Your task to perform on an android device: What's US dollar exchange rate against the South Korean Won? Image 0: 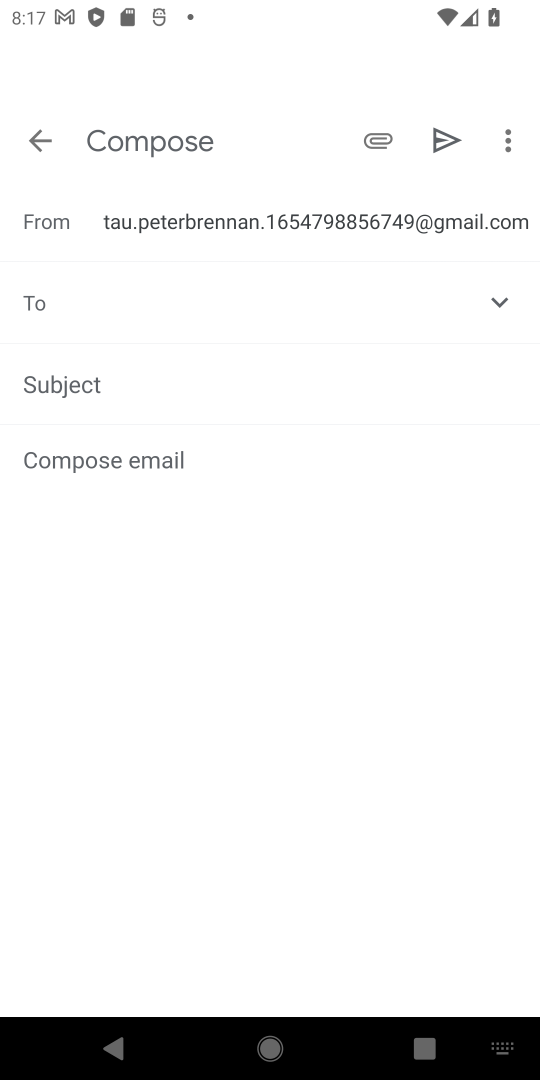
Step 0: press home button
Your task to perform on an android device: What's US dollar exchange rate against the South Korean Won? Image 1: 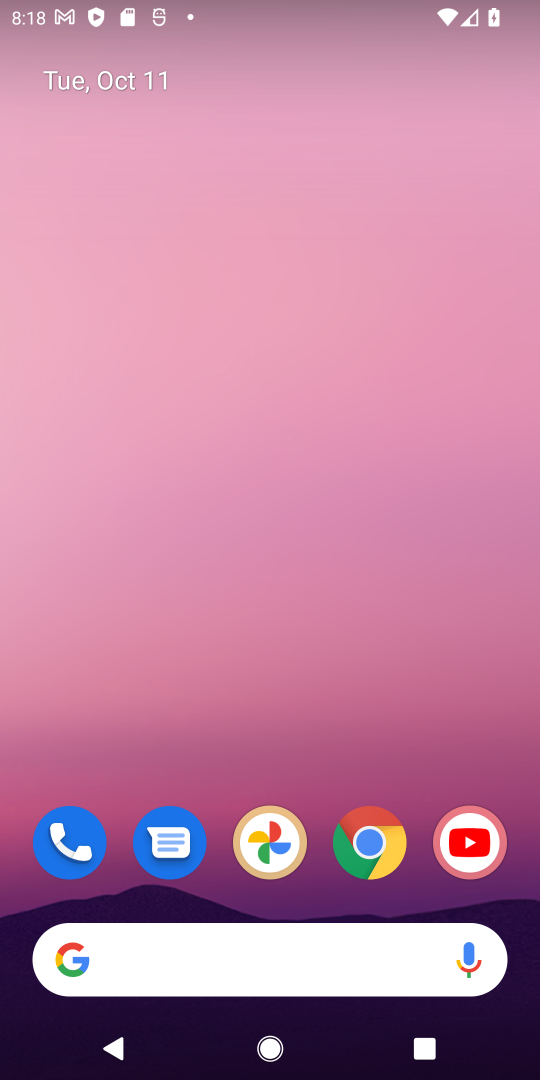
Step 1: click (367, 827)
Your task to perform on an android device: What's US dollar exchange rate against the South Korean Won? Image 2: 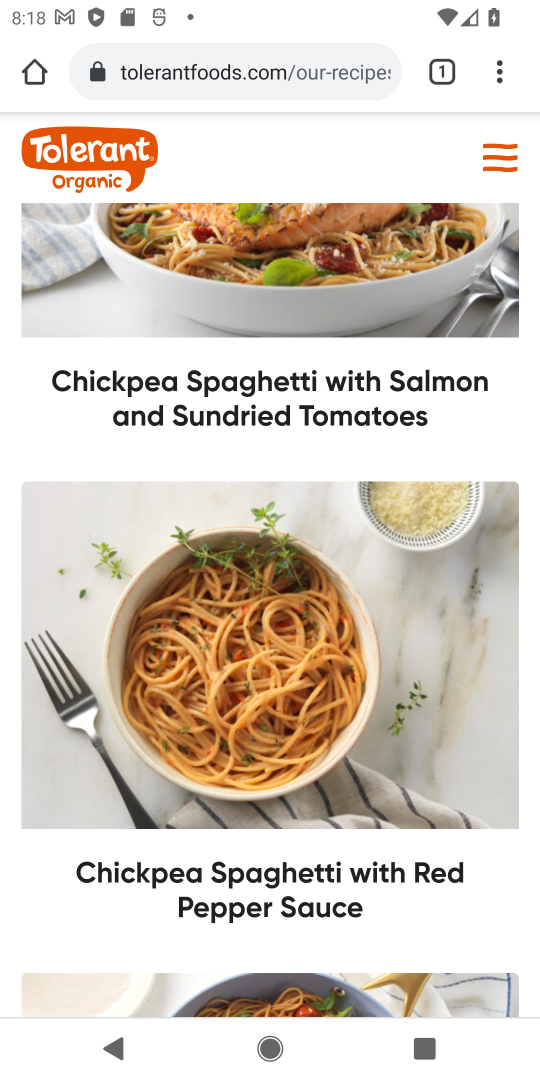
Step 2: click (274, 71)
Your task to perform on an android device: What's US dollar exchange rate against the South Korean Won? Image 3: 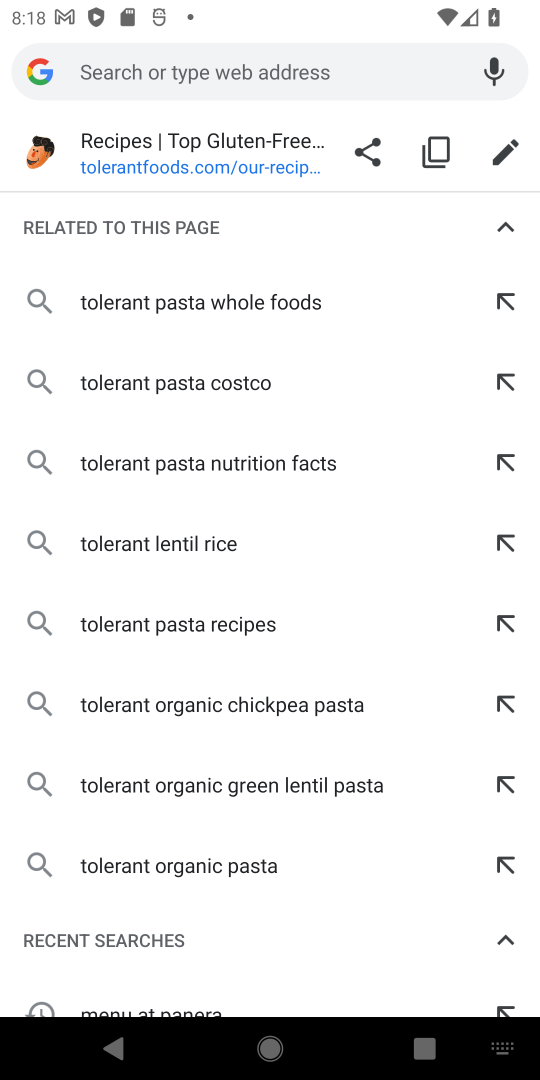
Step 3: type "us dollar exchange rate against the south korean won"
Your task to perform on an android device: What's US dollar exchange rate against the South Korean Won? Image 4: 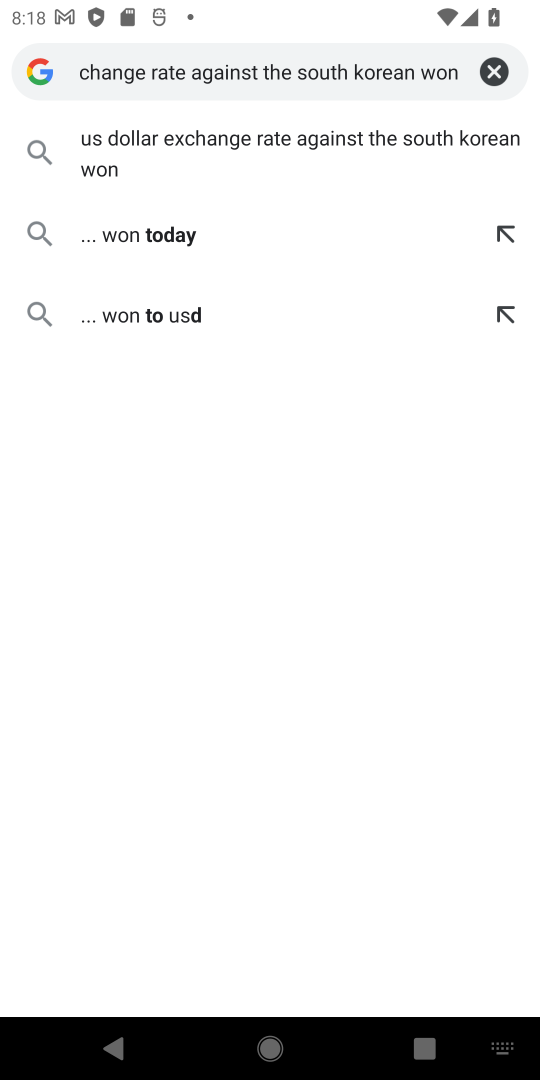
Step 4: click (124, 139)
Your task to perform on an android device: What's US dollar exchange rate against the South Korean Won? Image 5: 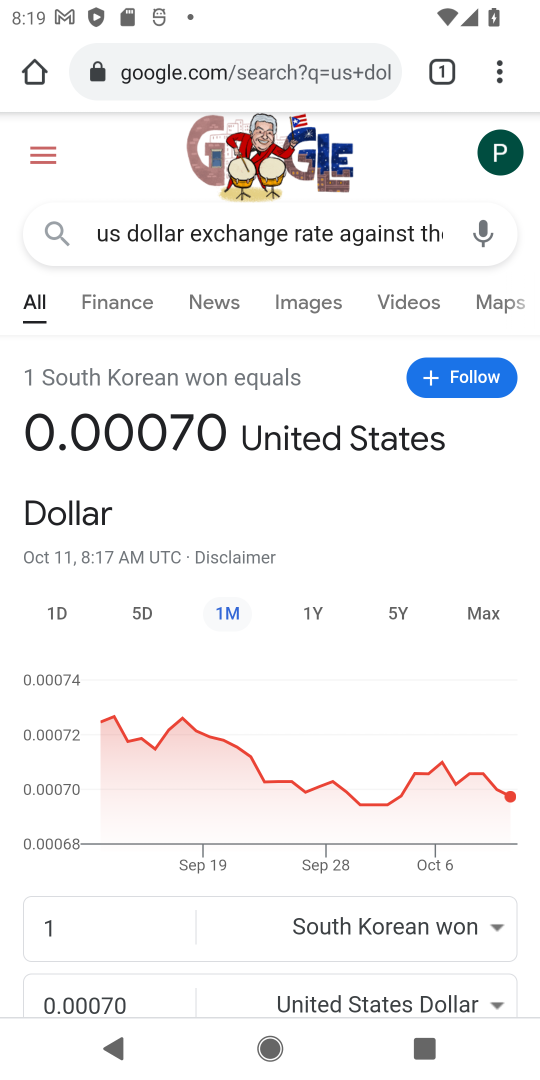
Step 5: drag from (384, 683) to (440, 363)
Your task to perform on an android device: What's US dollar exchange rate against the South Korean Won? Image 6: 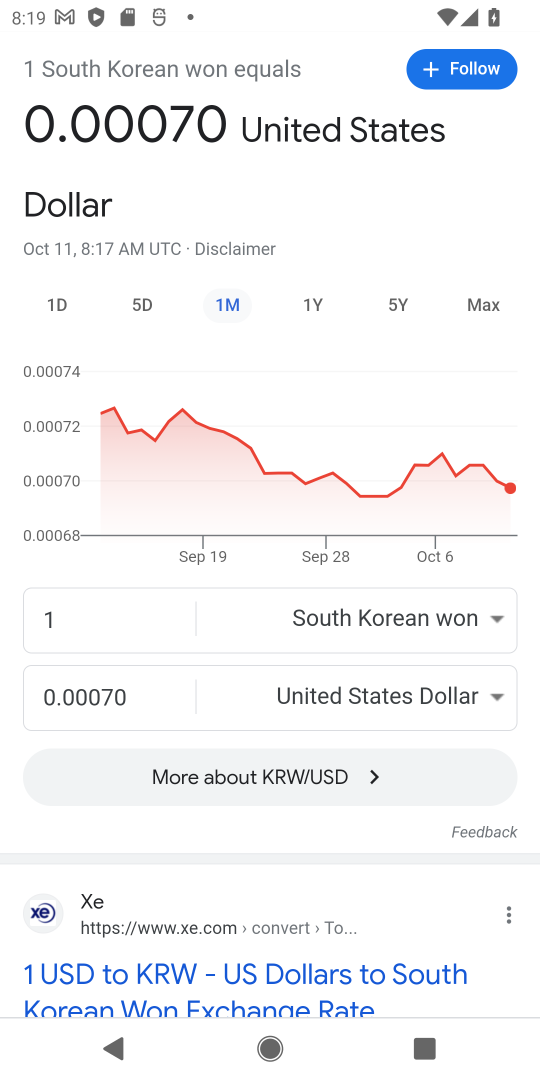
Step 6: drag from (322, 787) to (368, 421)
Your task to perform on an android device: What's US dollar exchange rate against the South Korean Won? Image 7: 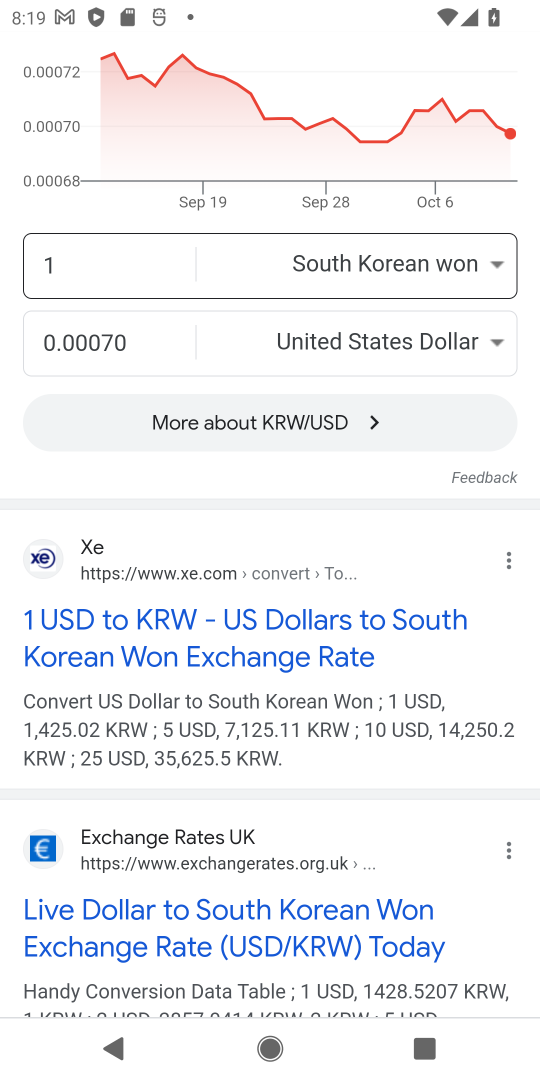
Step 7: drag from (276, 846) to (307, 370)
Your task to perform on an android device: What's US dollar exchange rate against the South Korean Won? Image 8: 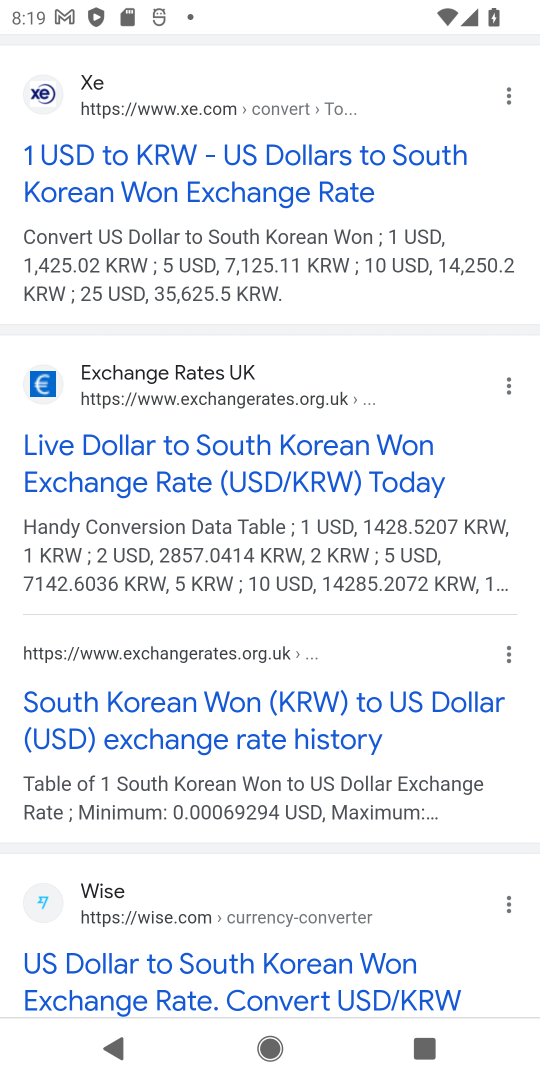
Step 8: drag from (341, 926) to (422, 322)
Your task to perform on an android device: What's US dollar exchange rate against the South Korean Won? Image 9: 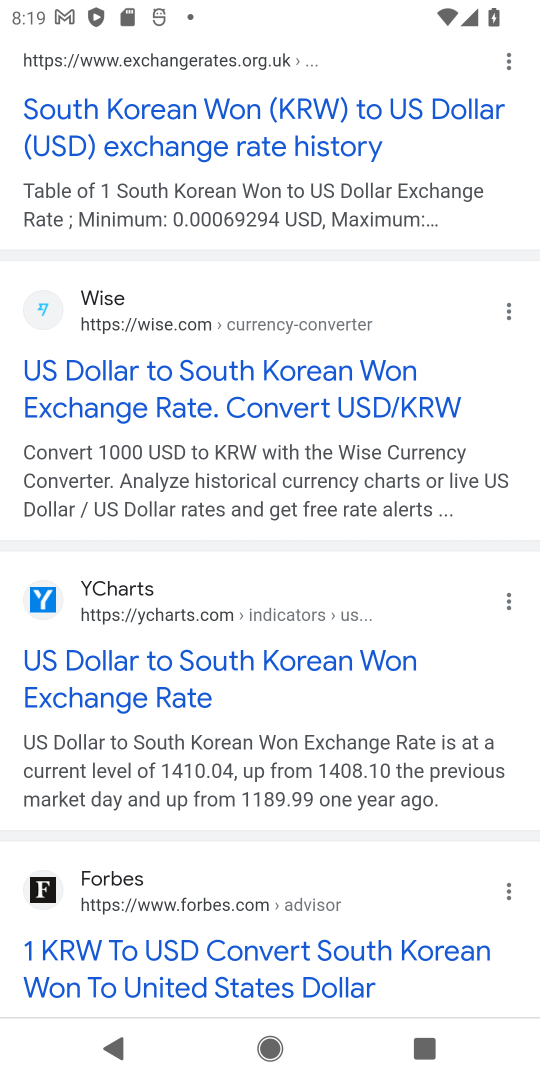
Step 9: drag from (224, 771) to (234, 458)
Your task to perform on an android device: What's US dollar exchange rate against the South Korean Won? Image 10: 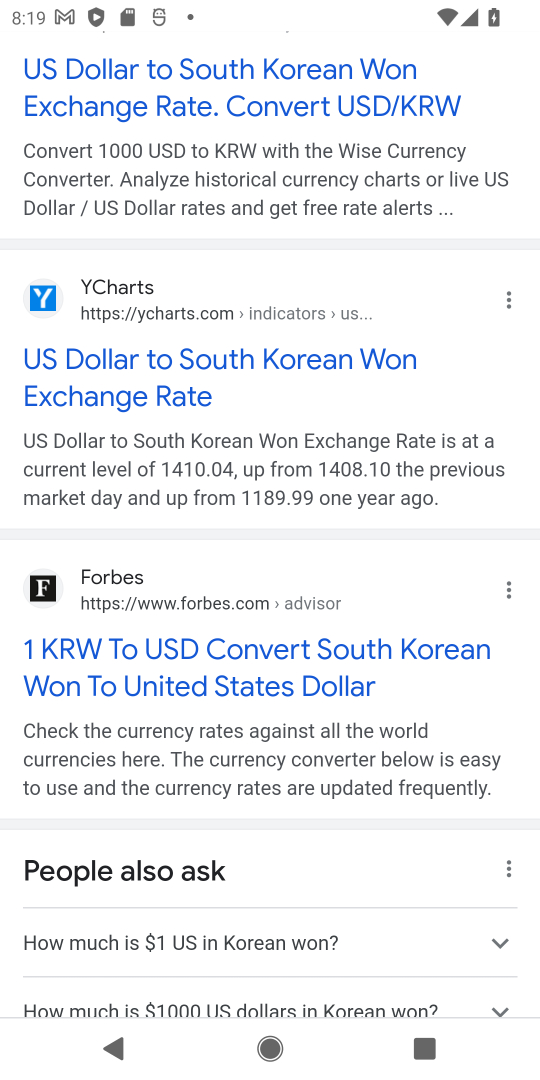
Step 10: click (159, 73)
Your task to perform on an android device: What's US dollar exchange rate against the South Korean Won? Image 11: 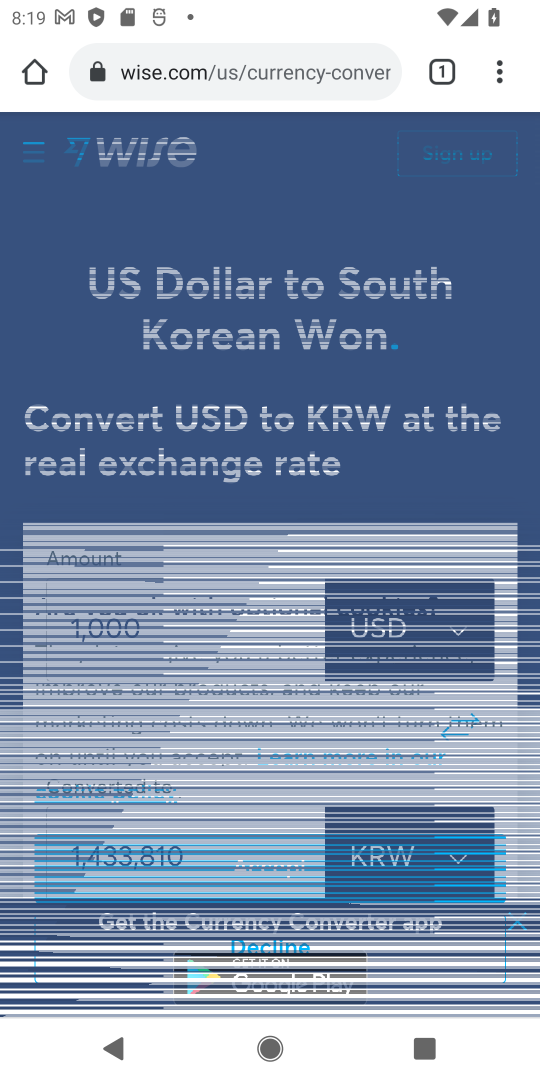
Step 11: drag from (190, 655) to (203, 293)
Your task to perform on an android device: What's US dollar exchange rate against the South Korean Won? Image 12: 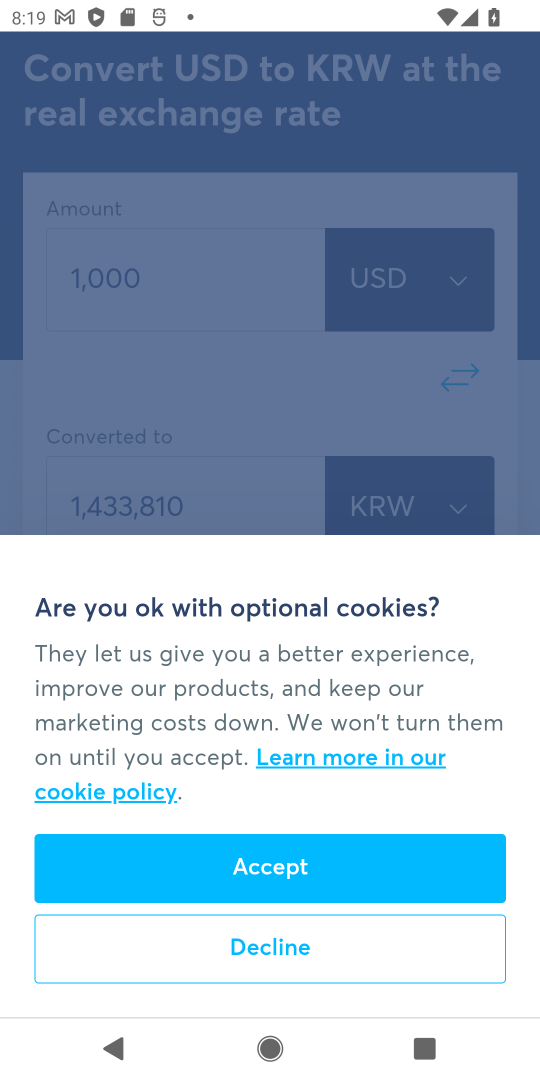
Step 12: click (328, 881)
Your task to perform on an android device: What's US dollar exchange rate against the South Korean Won? Image 13: 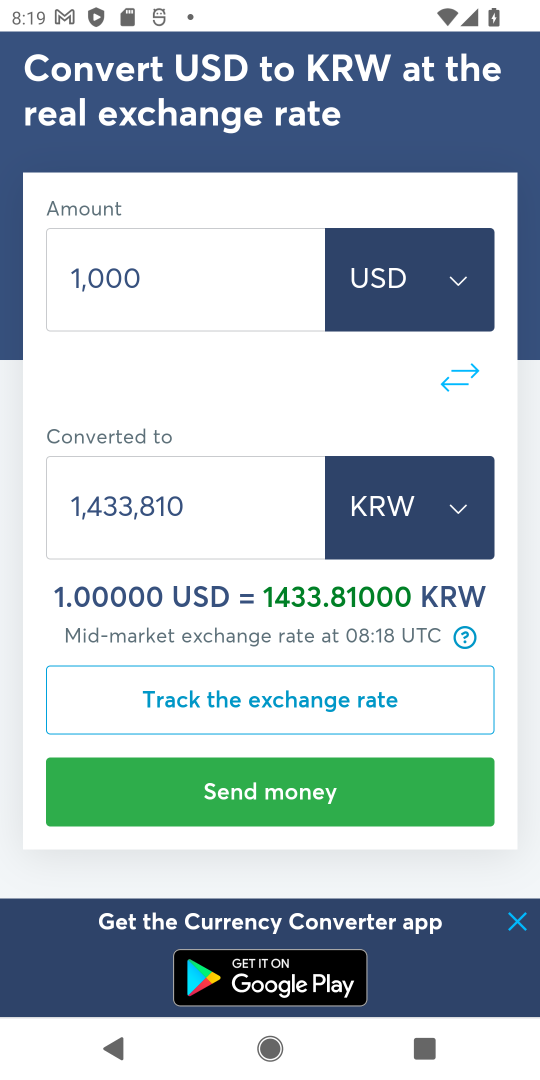
Step 13: drag from (240, 532) to (286, 113)
Your task to perform on an android device: What's US dollar exchange rate against the South Korean Won? Image 14: 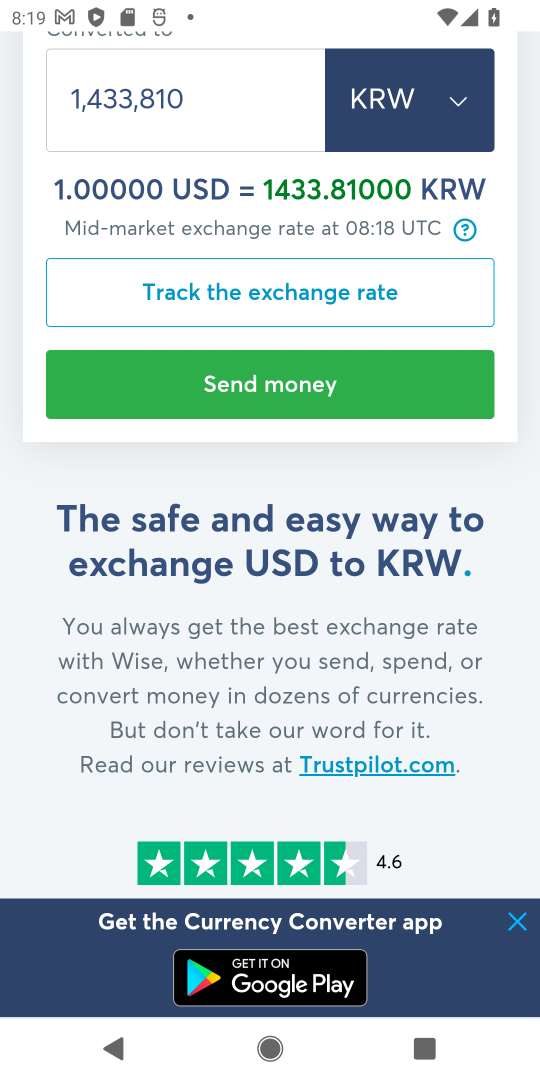
Step 14: click (522, 929)
Your task to perform on an android device: What's US dollar exchange rate against the South Korean Won? Image 15: 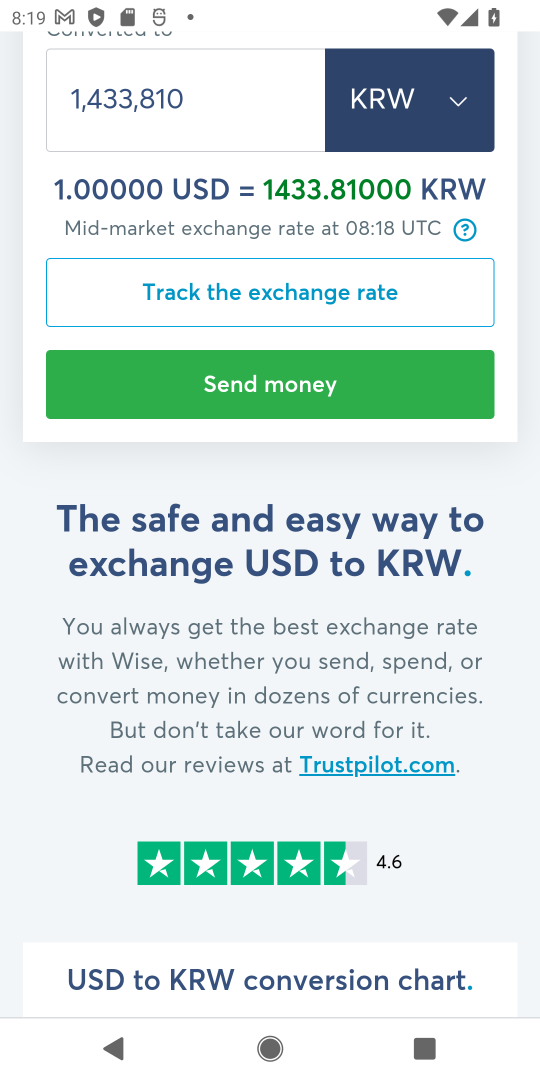
Step 15: task complete